Your task to perform on an android device: change notifications settings Image 0: 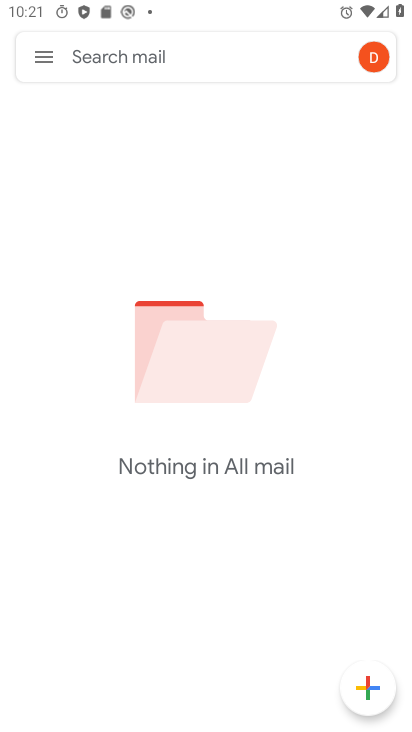
Step 0: press home button
Your task to perform on an android device: change notifications settings Image 1: 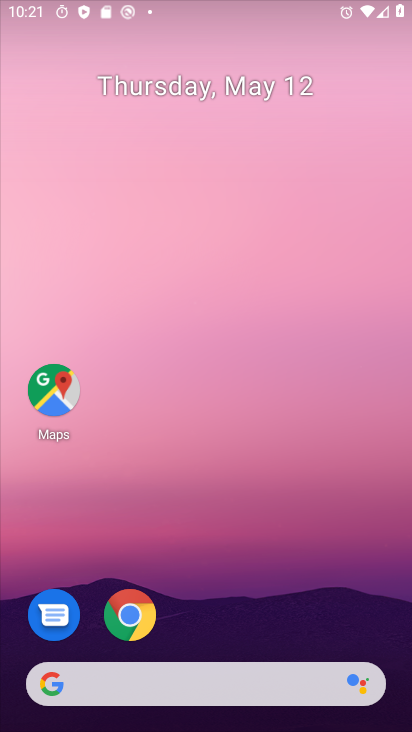
Step 1: press home button
Your task to perform on an android device: change notifications settings Image 2: 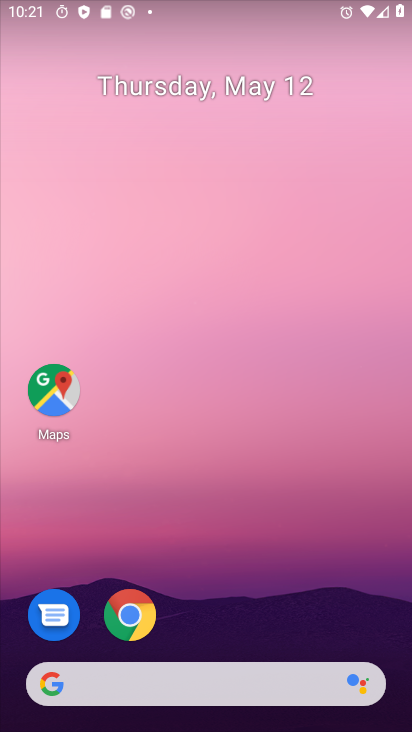
Step 2: drag from (215, 612) to (214, 169)
Your task to perform on an android device: change notifications settings Image 3: 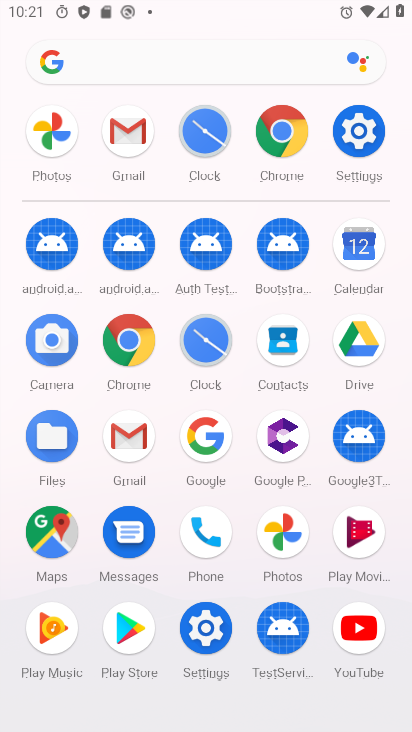
Step 3: click (347, 132)
Your task to perform on an android device: change notifications settings Image 4: 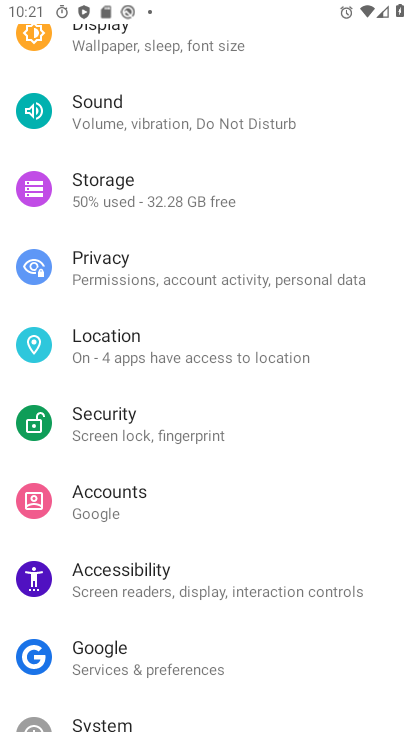
Step 4: drag from (184, 231) to (175, 704)
Your task to perform on an android device: change notifications settings Image 5: 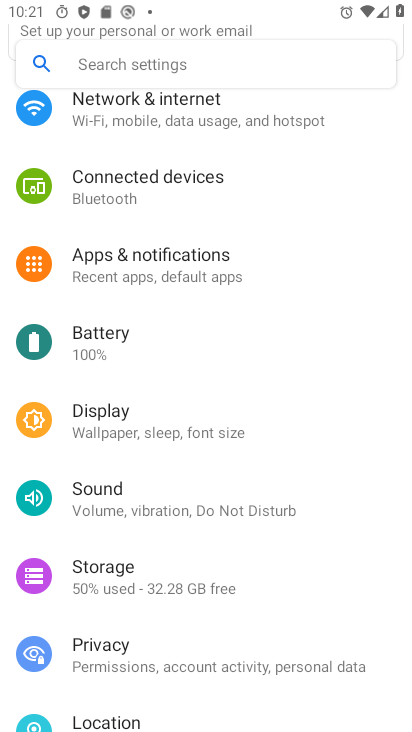
Step 5: click (207, 283)
Your task to perform on an android device: change notifications settings Image 6: 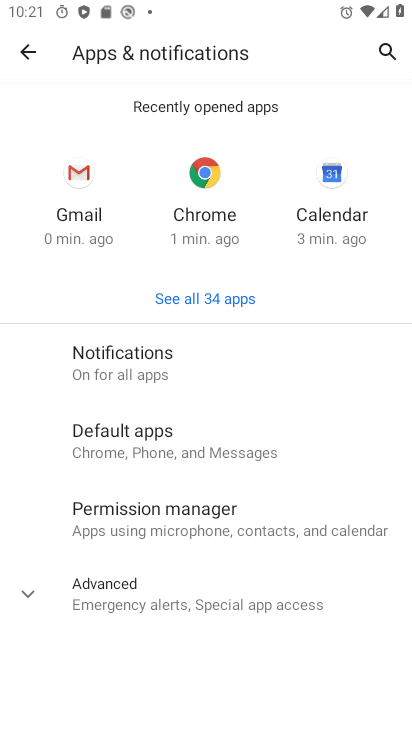
Step 6: click (134, 364)
Your task to perform on an android device: change notifications settings Image 7: 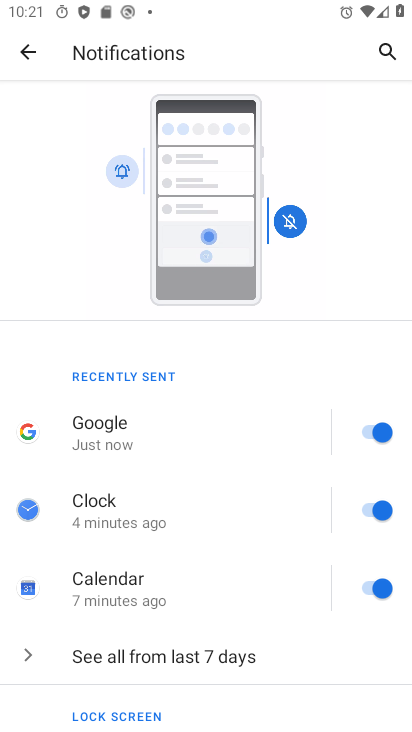
Step 7: task complete